Your task to perform on an android device: change alarm snooze length Image 0: 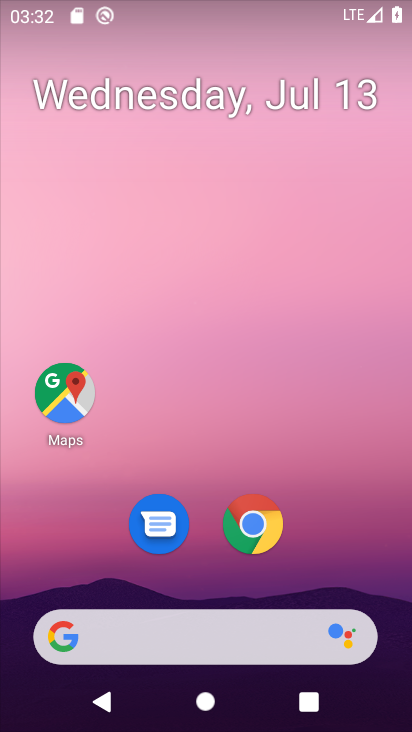
Step 0: drag from (347, 517) to (340, 57)
Your task to perform on an android device: change alarm snooze length Image 1: 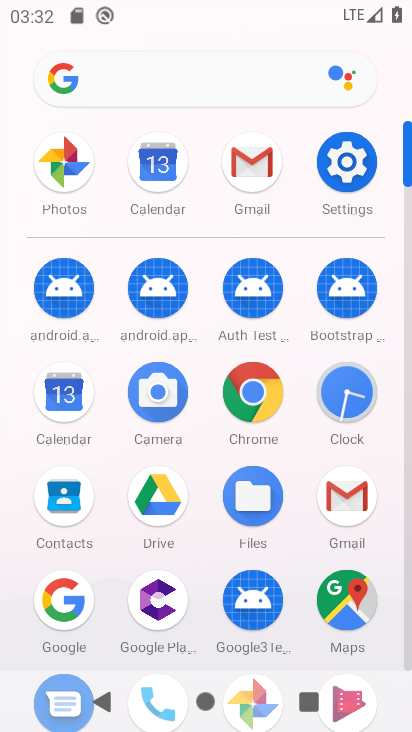
Step 1: click (356, 167)
Your task to perform on an android device: change alarm snooze length Image 2: 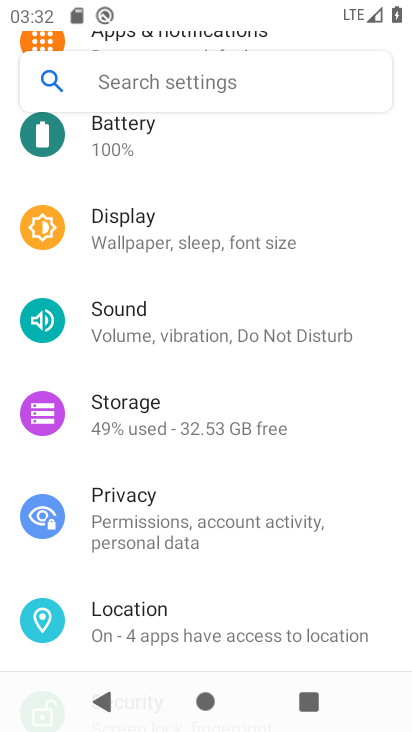
Step 2: press home button
Your task to perform on an android device: change alarm snooze length Image 3: 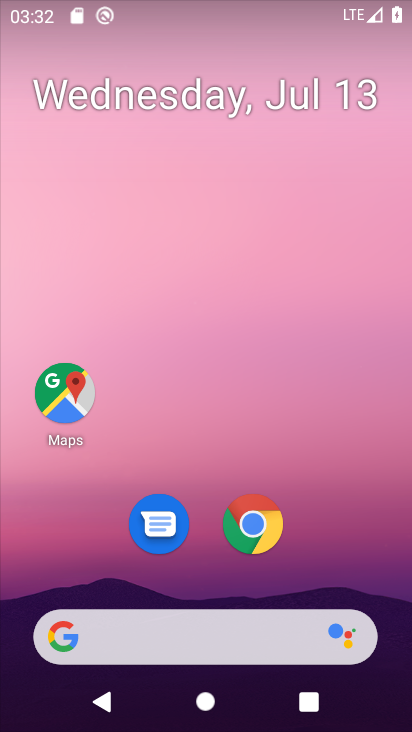
Step 3: drag from (337, 564) to (361, 96)
Your task to perform on an android device: change alarm snooze length Image 4: 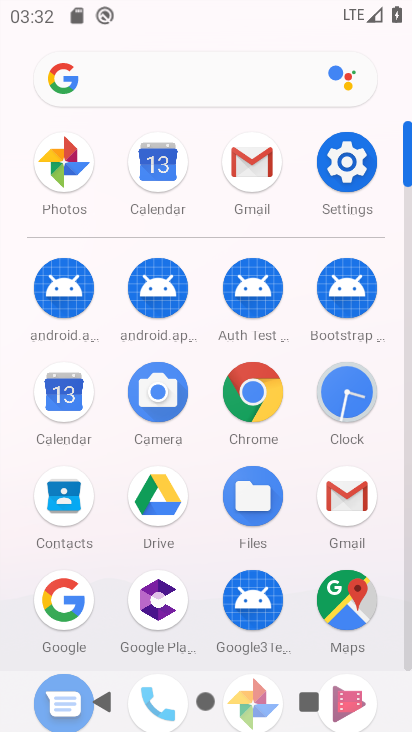
Step 4: click (346, 393)
Your task to perform on an android device: change alarm snooze length Image 5: 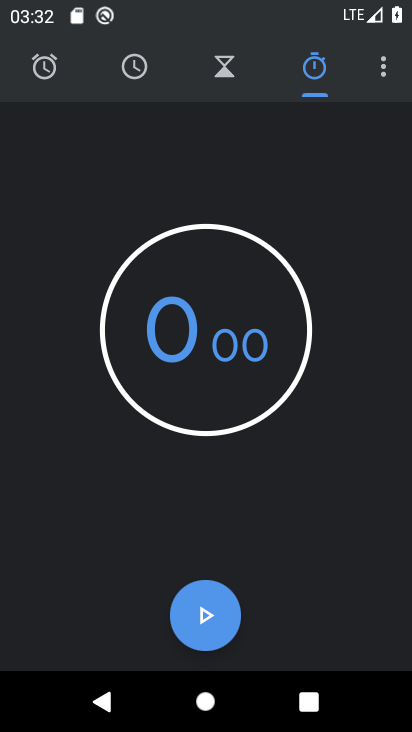
Step 5: click (385, 70)
Your task to perform on an android device: change alarm snooze length Image 6: 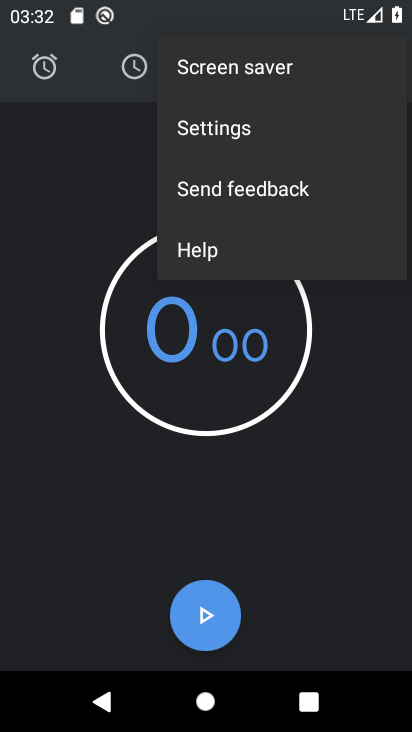
Step 6: click (274, 126)
Your task to perform on an android device: change alarm snooze length Image 7: 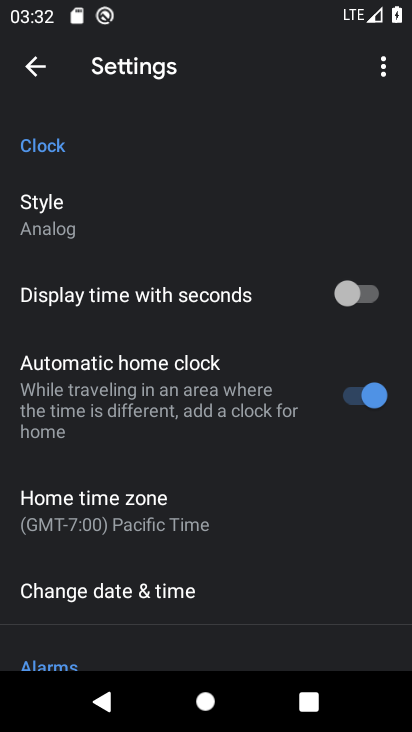
Step 7: drag from (243, 529) to (233, 153)
Your task to perform on an android device: change alarm snooze length Image 8: 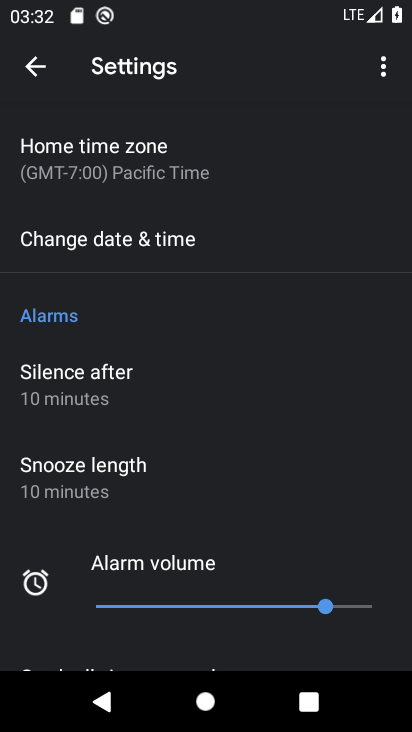
Step 8: click (105, 461)
Your task to perform on an android device: change alarm snooze length Image 9: 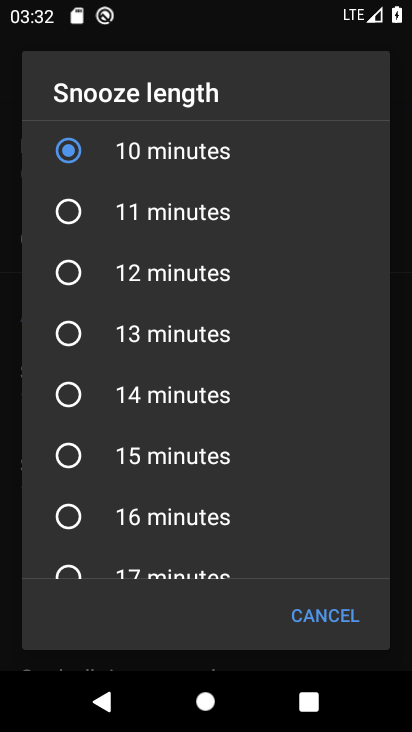
Step 9: click (70, 267)
Your task to perform on an android device: change alarm snooze length Image 10: 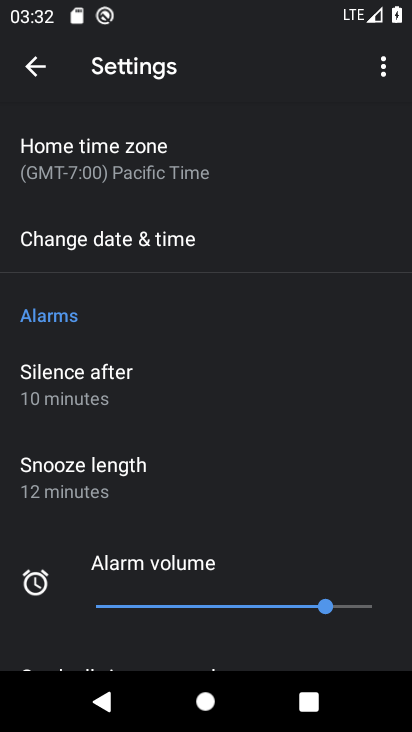
Step 10: task complete